Your task to perform on an android device: Add "sony triple a" to the cart on amazon.com, then select checkout. Image 0: 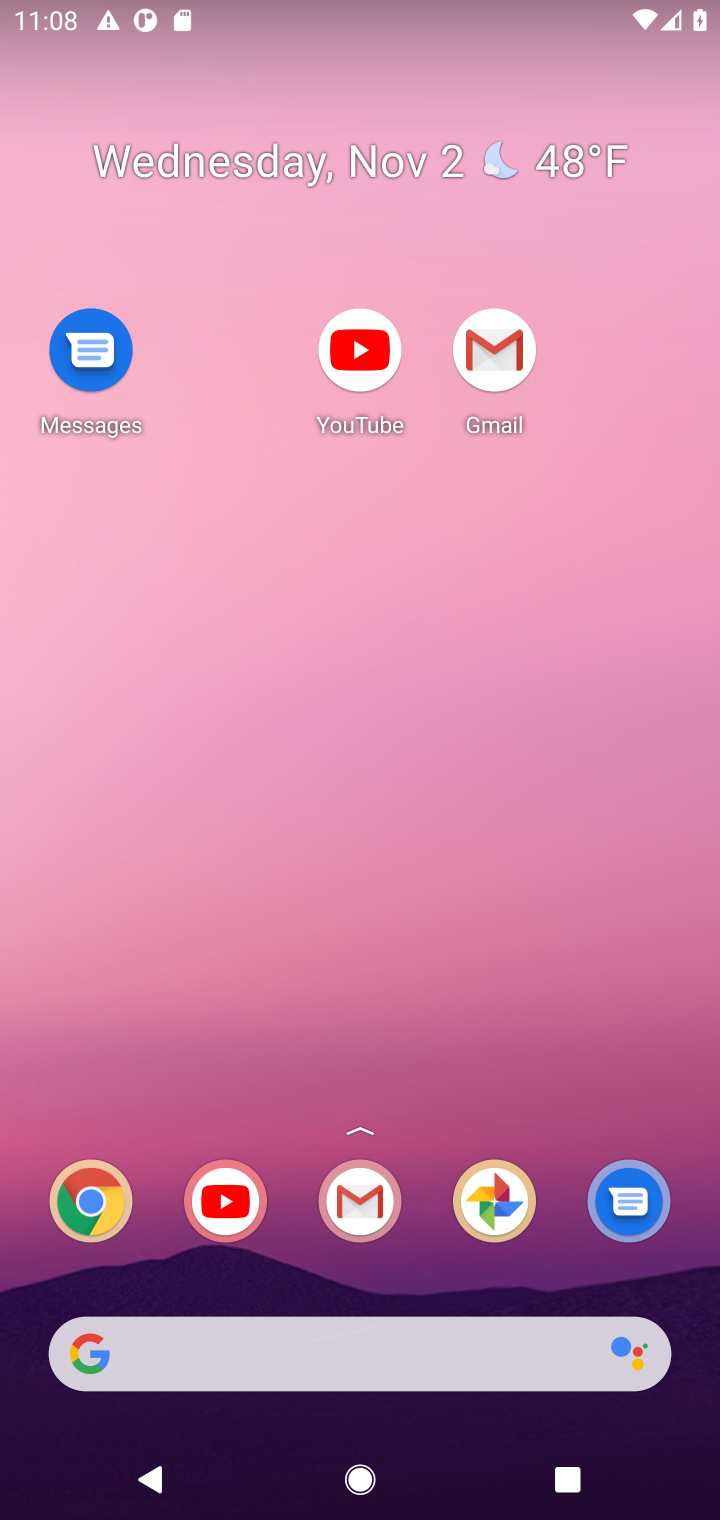
Step 0: drag from (414, 1253) to (431, 231)
Your task to perform on an android device: Add "sony triple a" to the cart on amazon.com, then select checkout. Image 1: 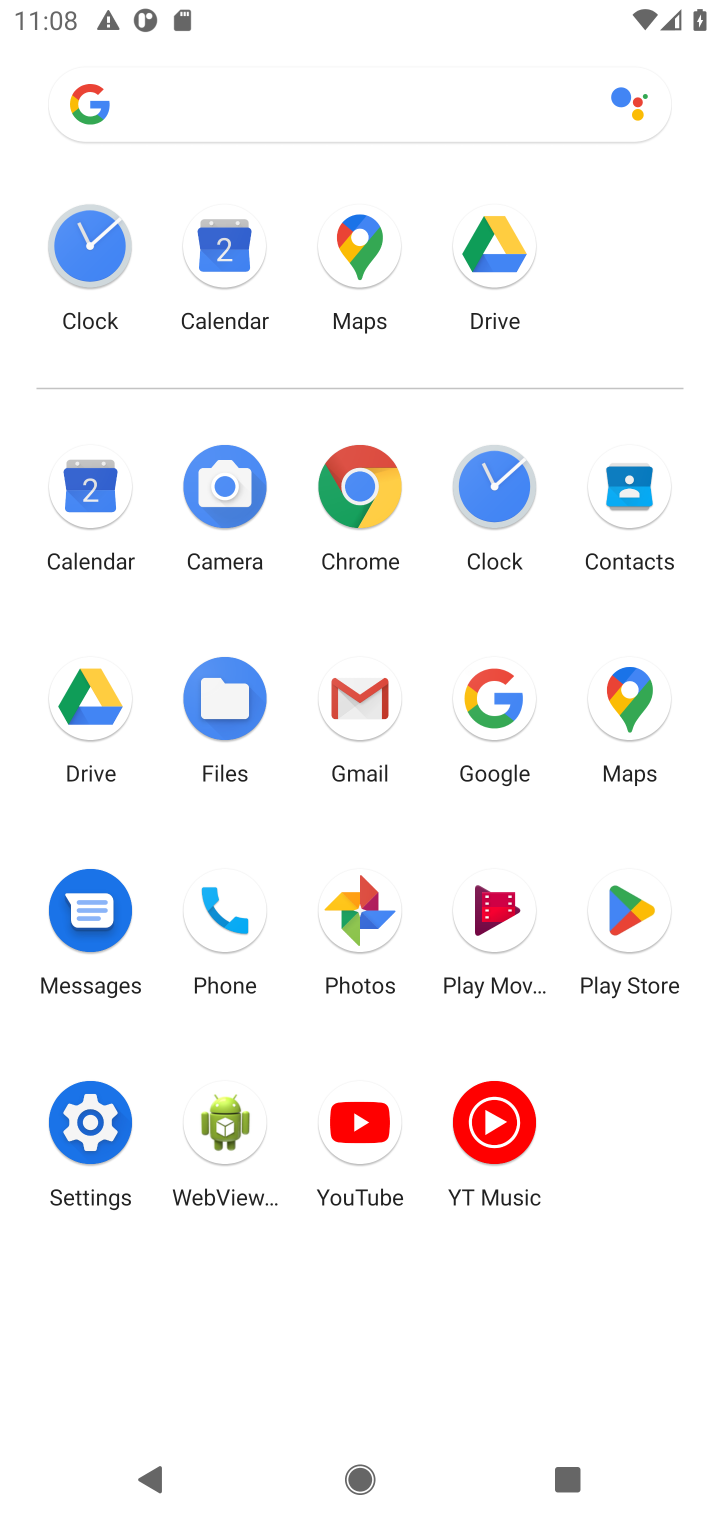
Step 1: click (357, 486)
Your task to perform on an android device: Add "sony triple a" to the cart on amazon.com, then select checkout. Image 2: 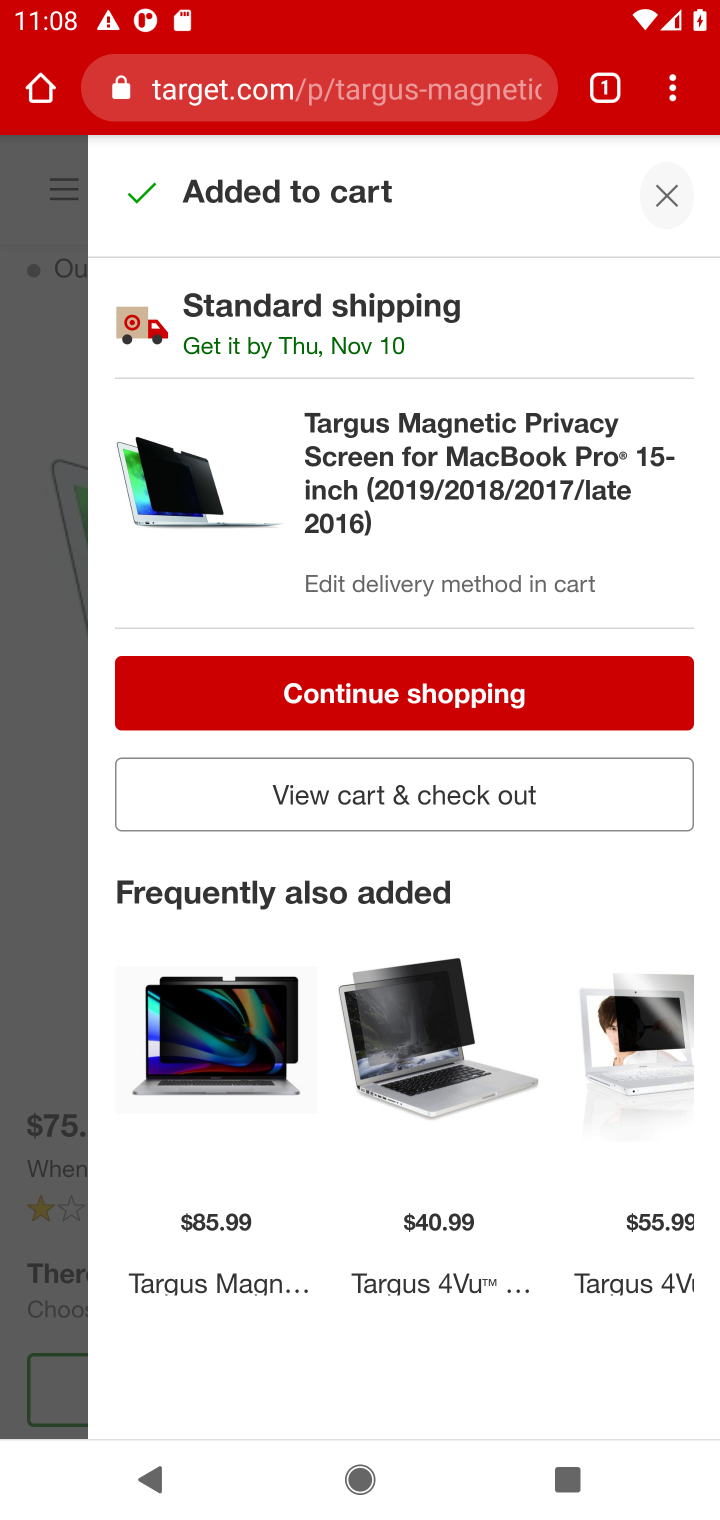
Step 2: click (371, 90)
Your task to perform on an android device: Add "sony triple a" to the cart on amazon.com, then select checkout. Image 3: 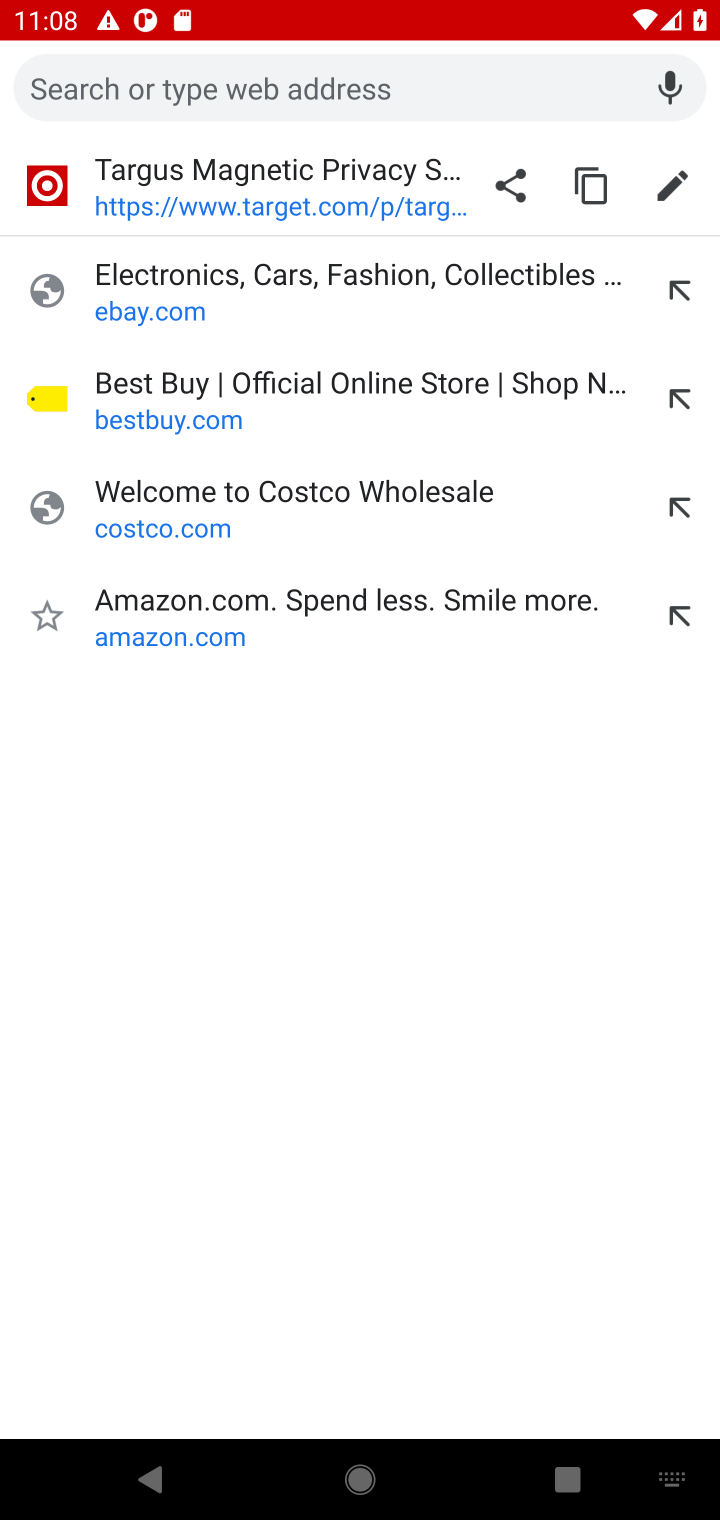
Step 3: type "amazon.com"
Your task to perform on an android device: Add "sony triple a" to the cart on amazon.com, then select checkout. Image 4: 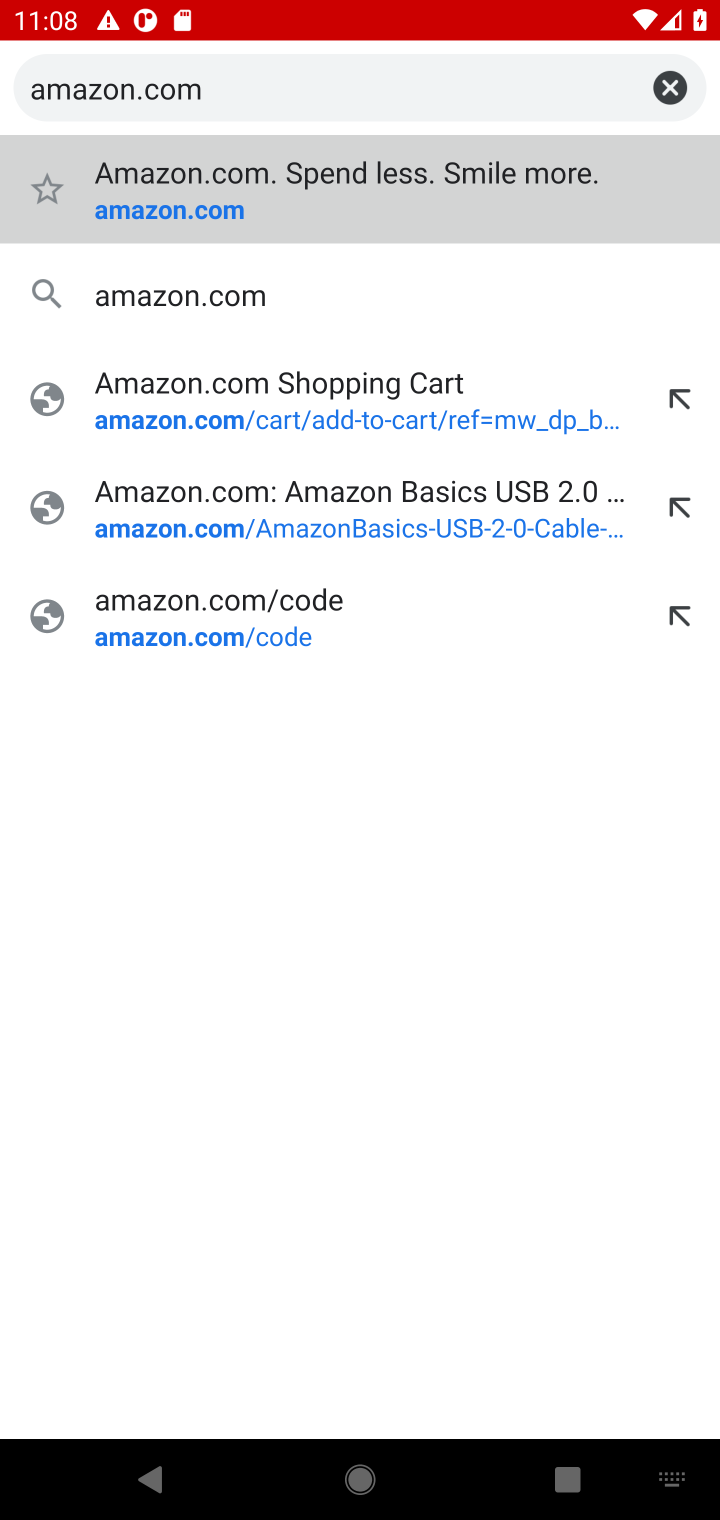
Step 4: press enter
Your task to perform on an android device: Add "sony triple a" to the cart on amazon.com, then select checkout. Image 5: 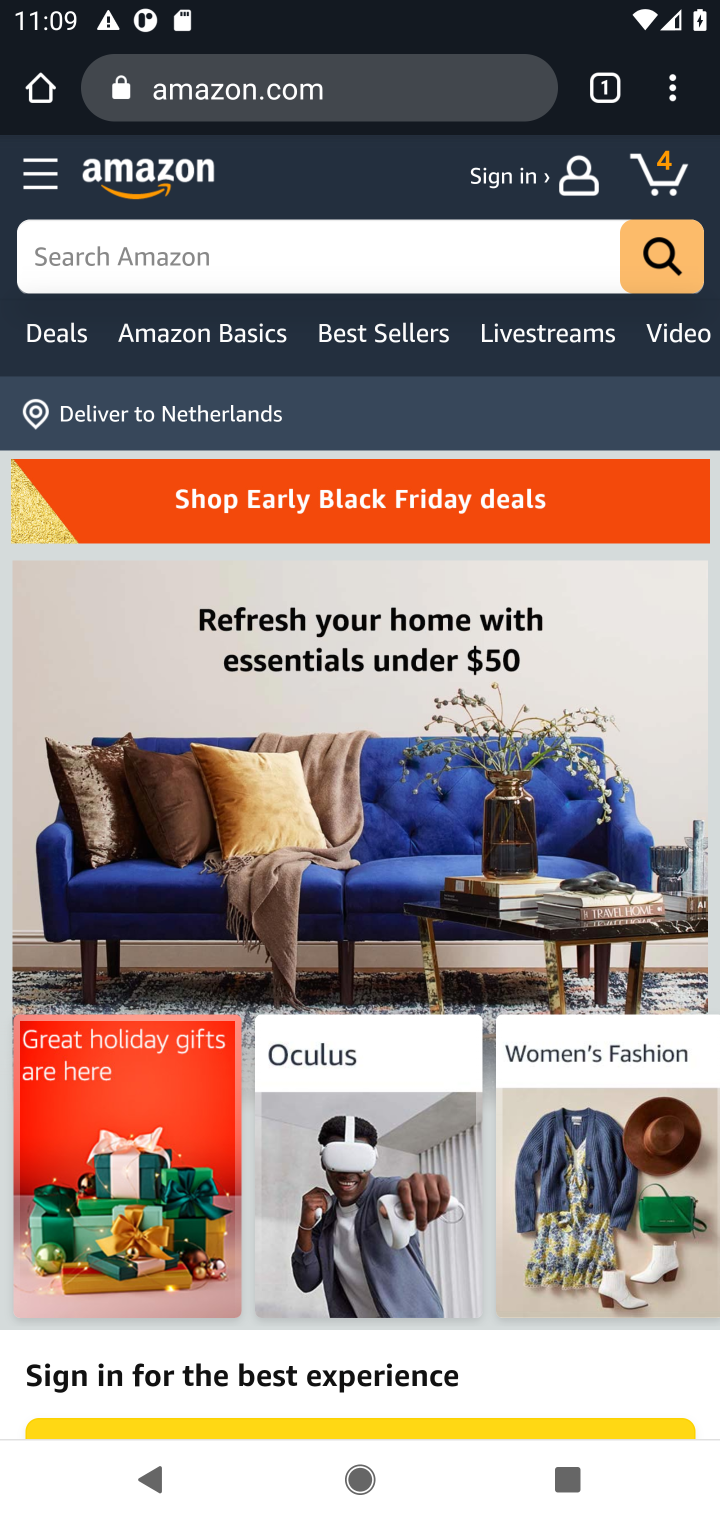
Step 5: click (416, 266)
Your task to perform on an android device: Add "sony triple a" to the cart on amazon.com, then select checkout. Image 6: 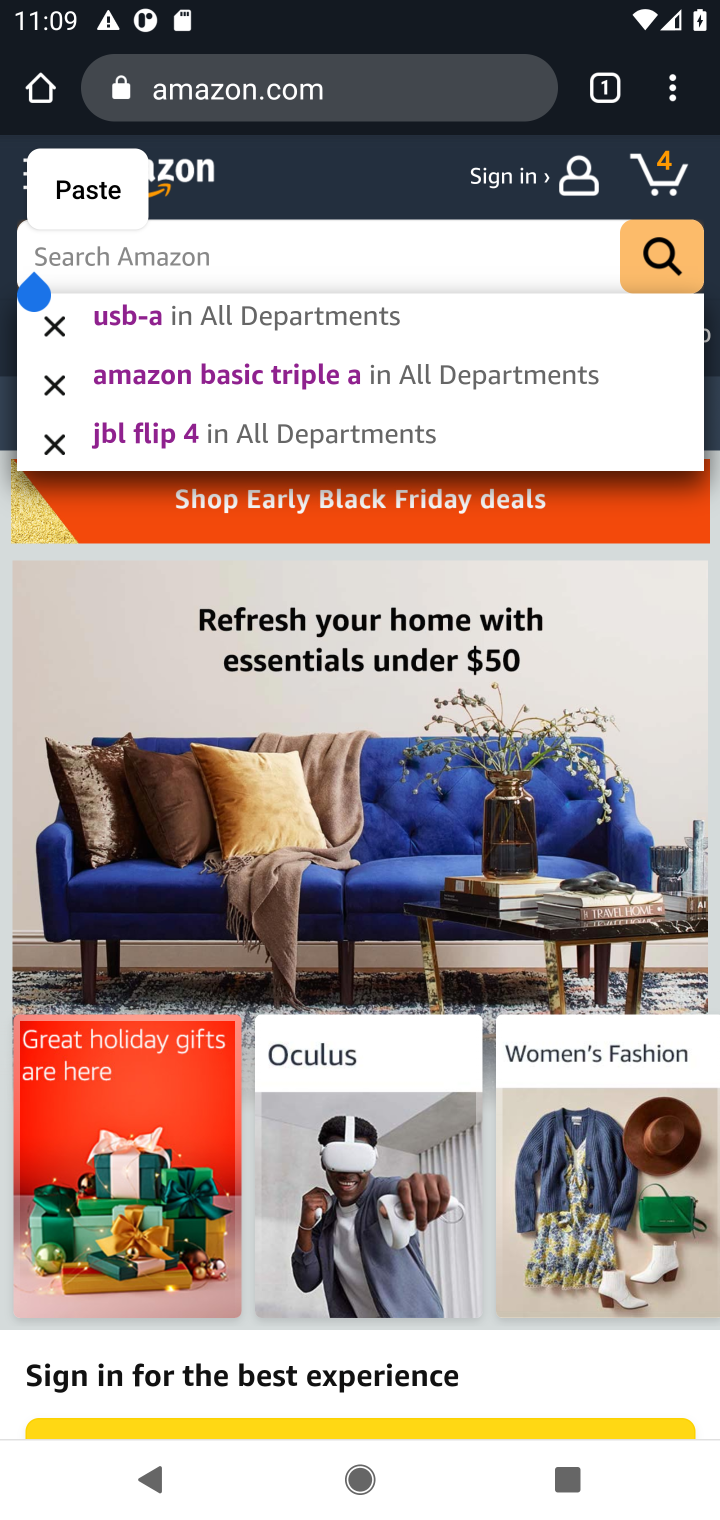
Step 6: type "sony triple a"
Your task to perform on an android device: Add "sony triple a" to the cart on amazon.com, then select checkout. Image 7: 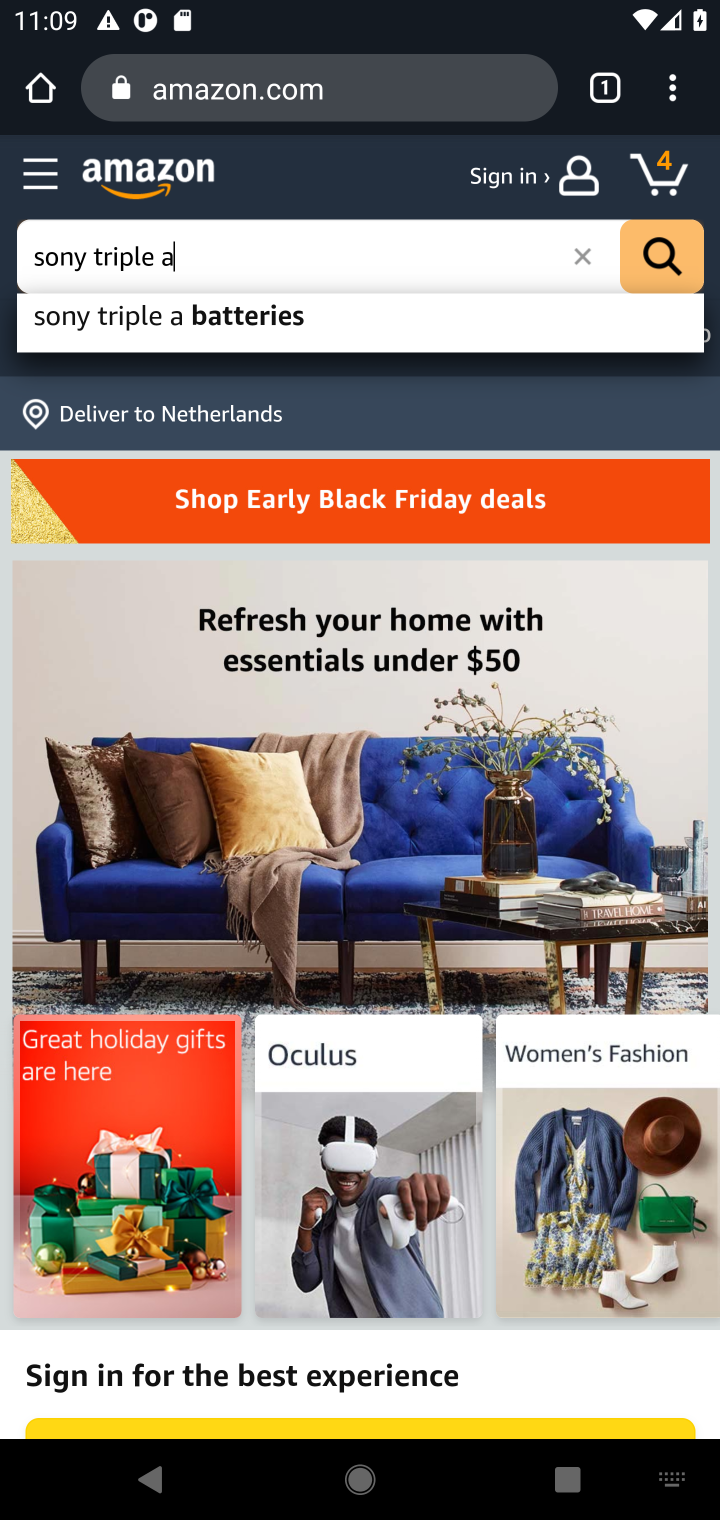
Step 7: press enter
Your task to perform on an android device: Add "sony triple a" to the cart on amazon.com, then select checkout. Image 8: 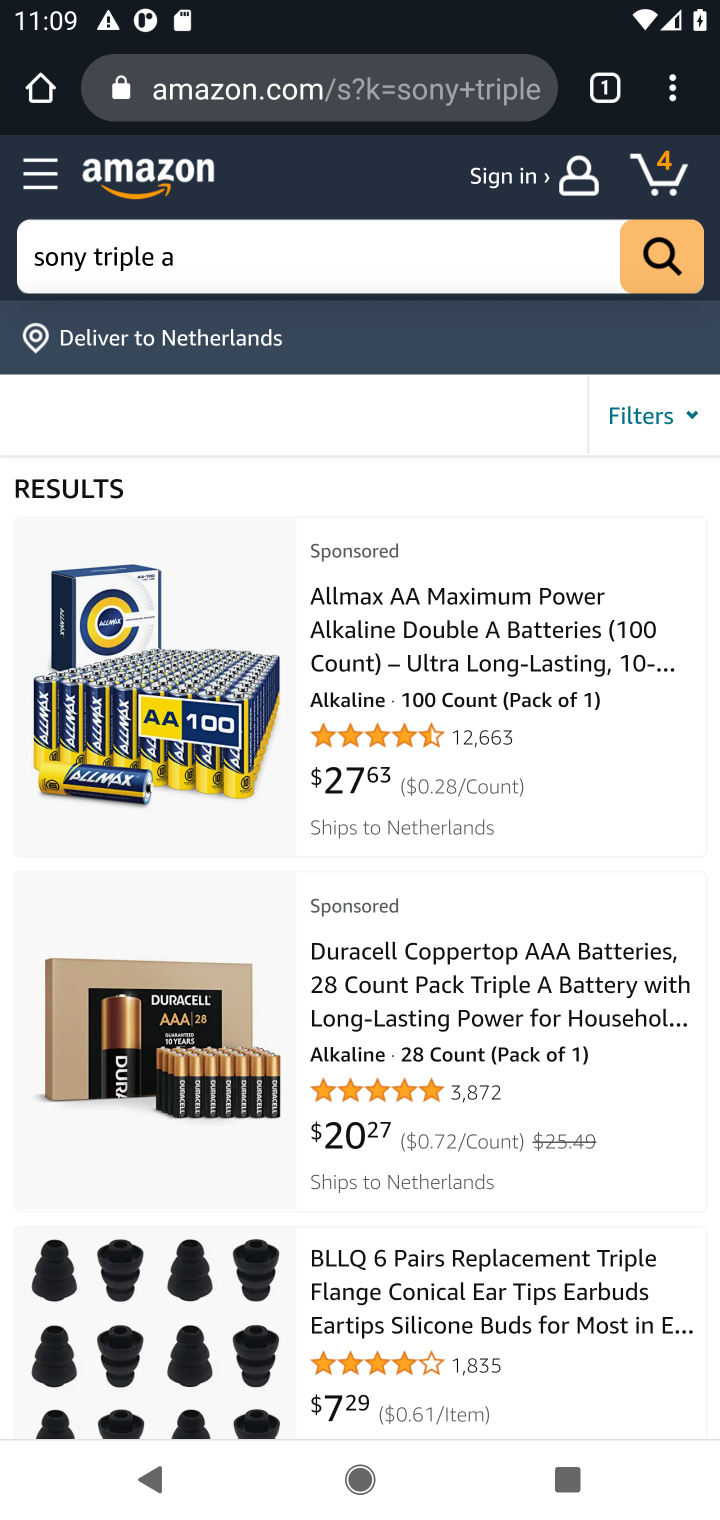
Step 8: task complete